Your task to perform on an android device: Go to Google Image 0: 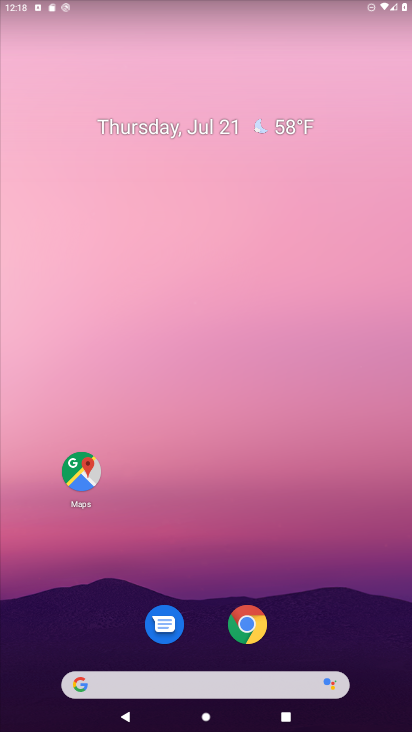
Step 0: drag from (199, 512) to (199, 261)
Your task to perform on an android device: Go to Google Image 1: 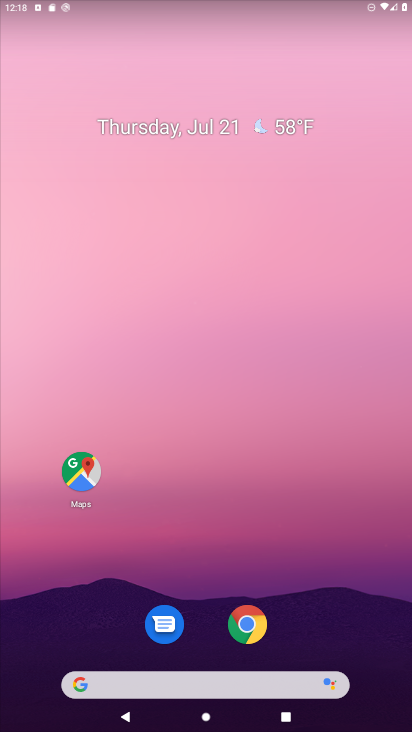
Step 1: drag from (215, 573) to (211, 195)
Your task to perform on an android device: Go to Google Image 2: 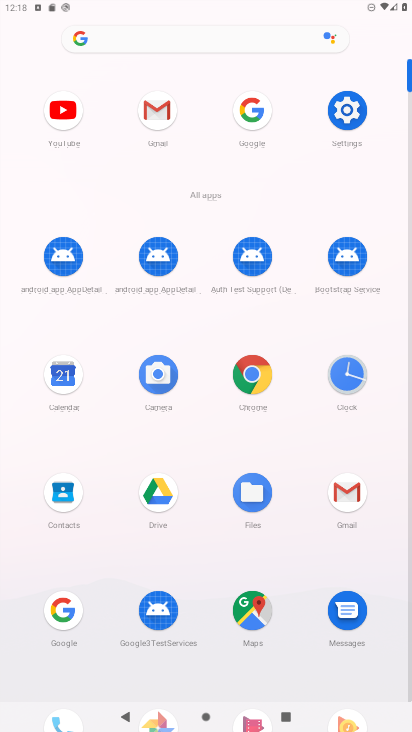
Step 2: click (262, 133)
Your task to perform on an android device: Go to Google Image 3: 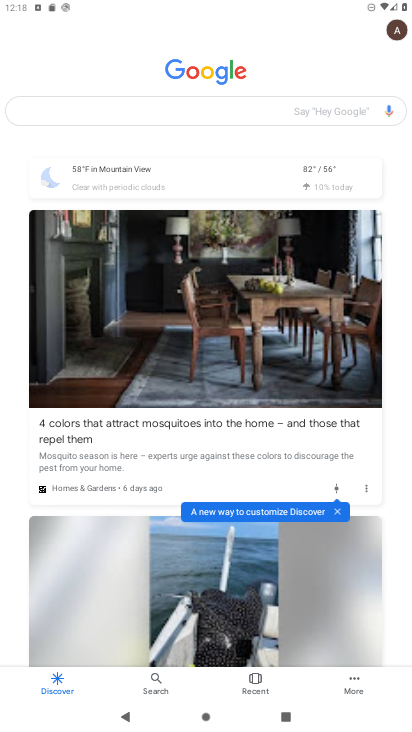
Step 3: task complete